Your task to perform on an android device: turn on translation in the chrome app Image 0: 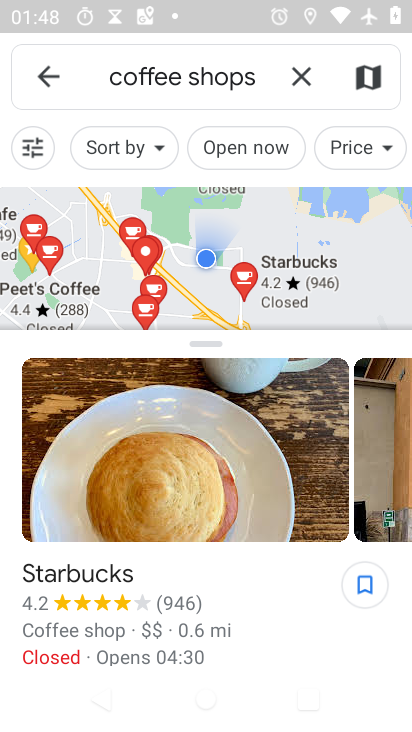
Step 0: press home button
Your task to perform on an android device: turn on translation in the chrome app Image 1: 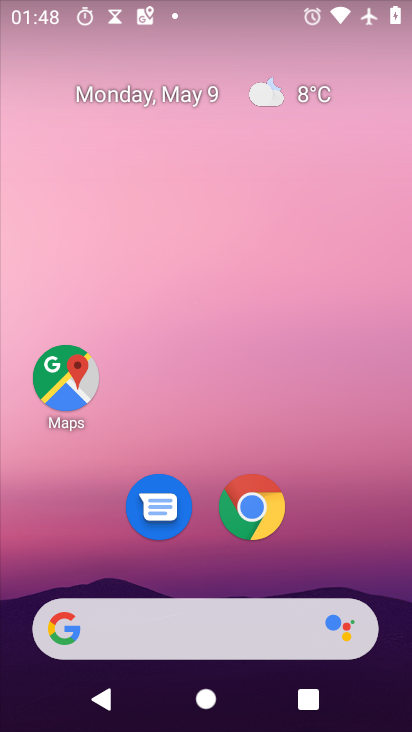
Step 1: click (247, 518)
Your task to perform on an android device: turn on translation in the chrome app Image 2: 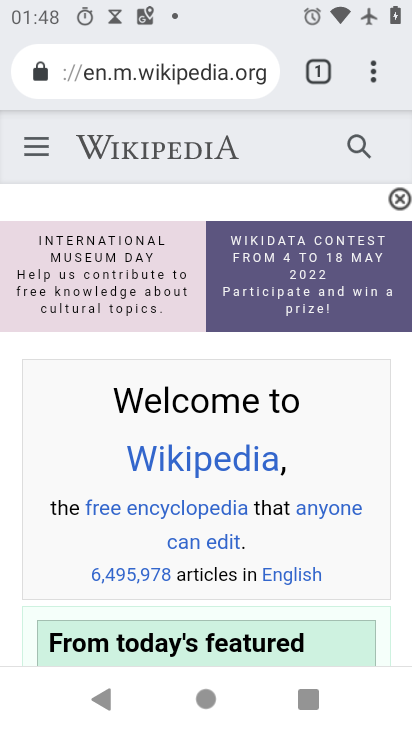
Step 2: click (373, 79)
Your task to perform on an android device: turn on translation in the chrome app Image 3: 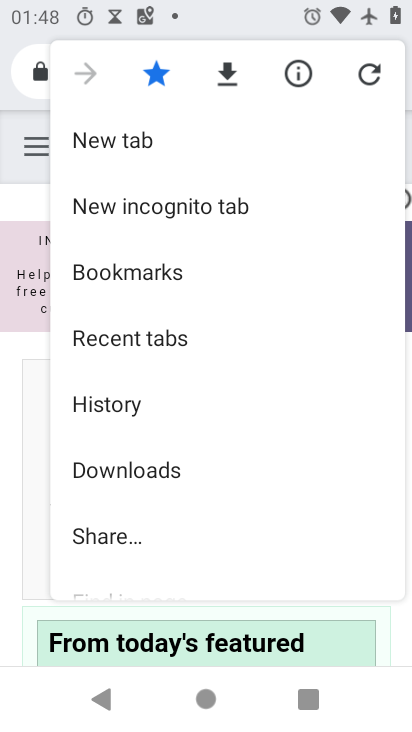
Step 3: drag from (178, 573) to (176, 143)
Your task to perform on an android device: turn on translation in the chrome app Image 4: 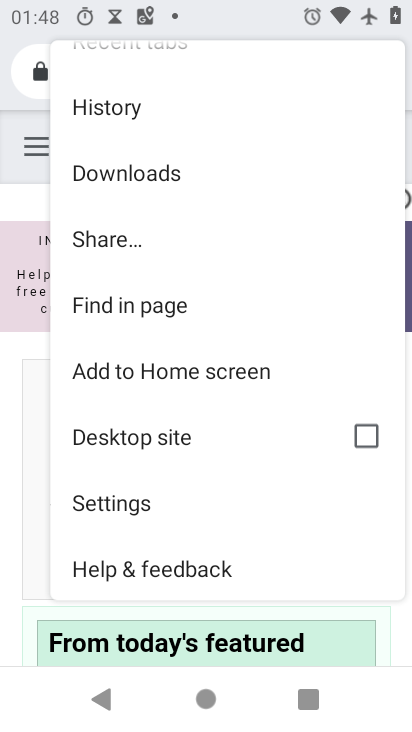
Step 4: click (137, 500)
Your task to perform on an android device: turn on translation in the chrome app Image 5: 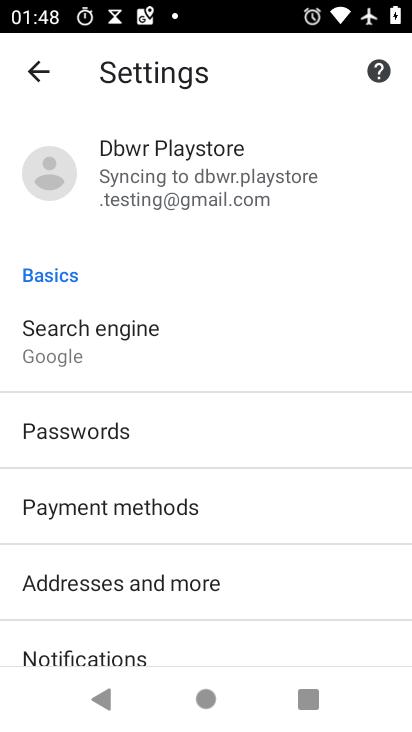
Step 5: drag from (123, 634) to (126, 321)
Your task to perform on an android device: turn on translation in the chrome app Image 6: 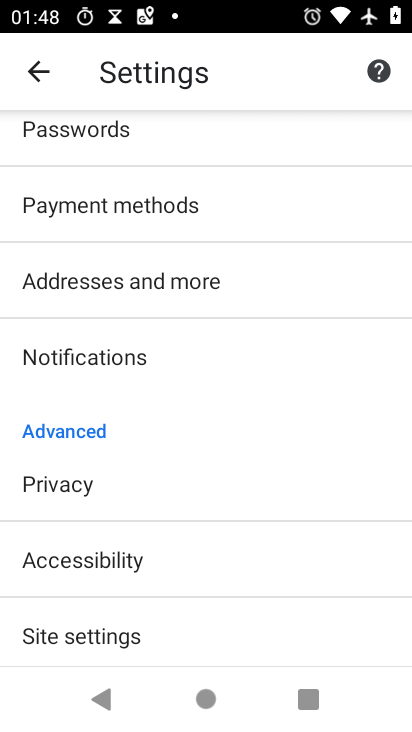
Step 6: drag from (133, 629) to (141, 302)
Your task to perform on an android device: turn on translation in the chrome app Image 7: 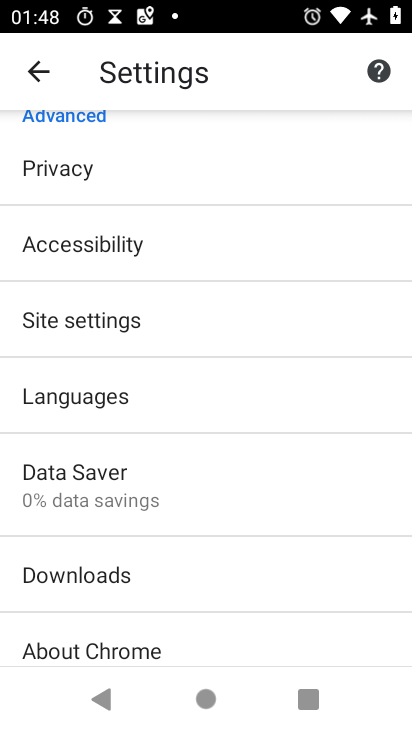
Step 7: drag from (126, 639) to (158, 314)
Your task to perform on an android device: turn on translation in the chrome app Image 8: 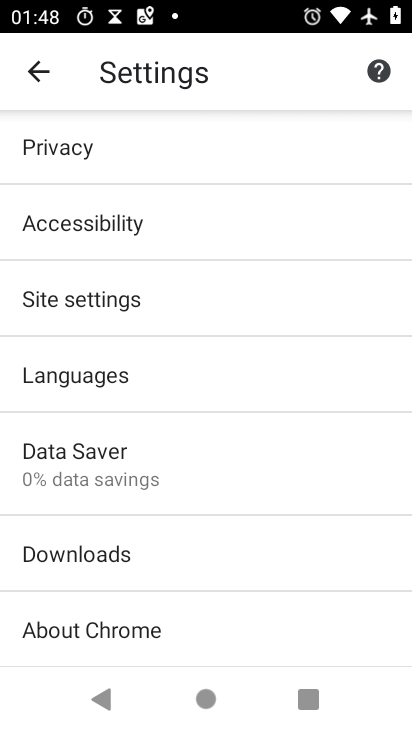
Step 8: drag from (162, 636) to (171, 299)
Your task to perform on an android device: turn on translation in the chrome app Image 9: 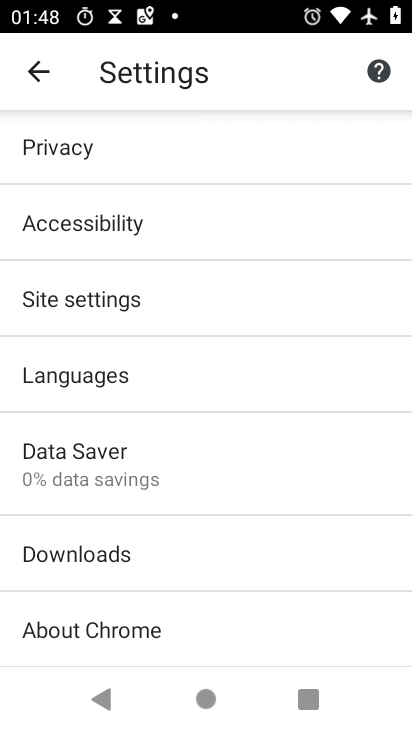
Step 9: click (86, 374)
Your task to perform on an android device: turn on translation in the chrome app Image 10: 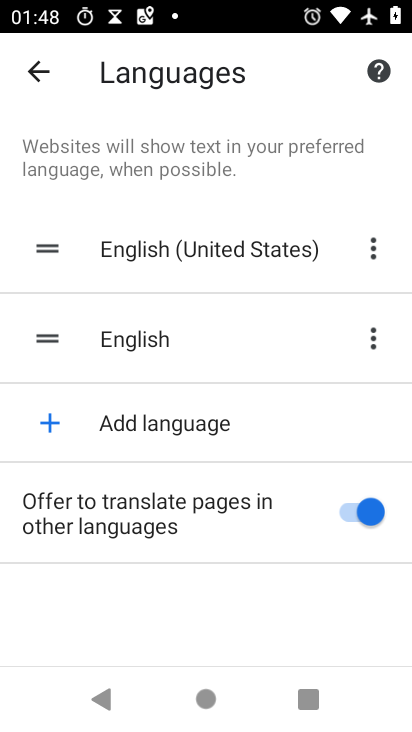
Step 10: task complete